Your task to perform on an android device: uninstall "Flipkart Online Shopping App" Image 0: 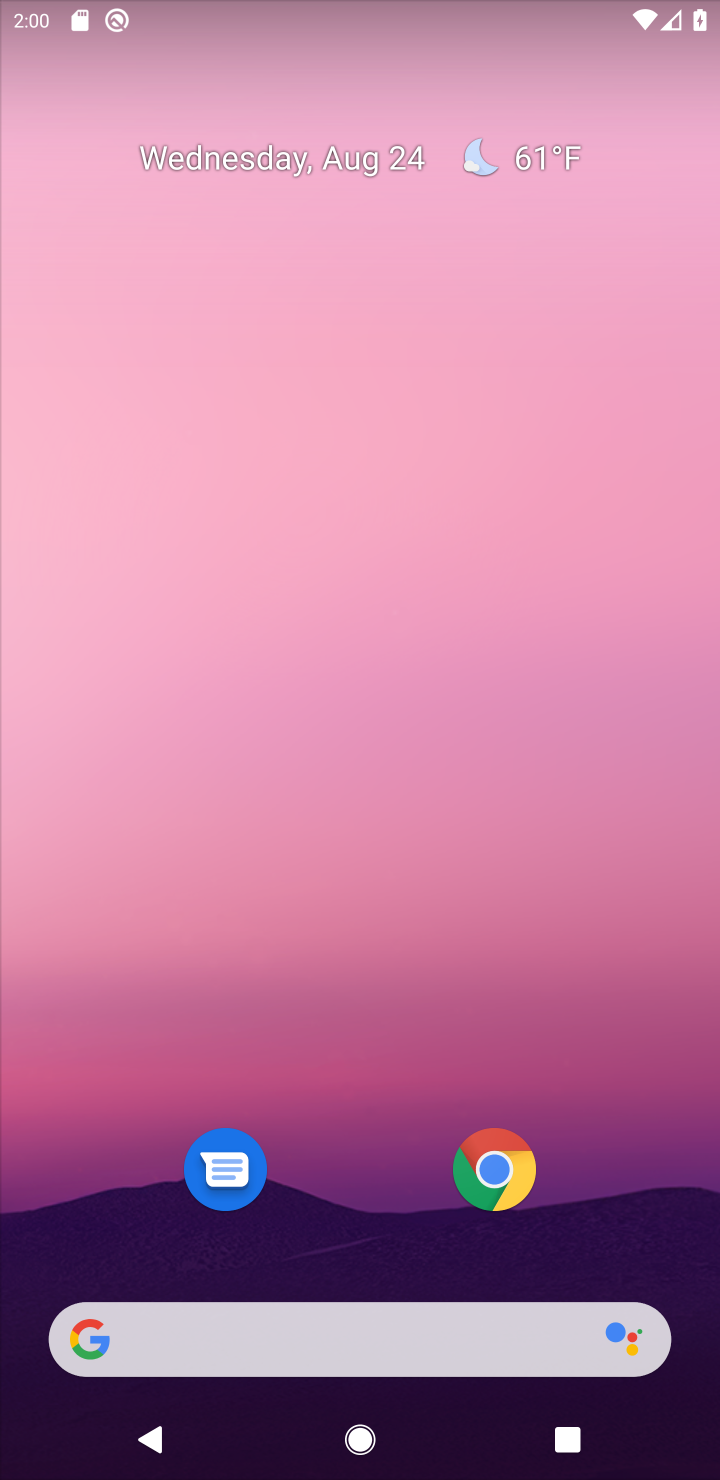
Step 0: drag from (437, 1241) to (313, 198)
Your task to perform on an android device: uninstall "Flipkart Online Shopping App" Image 1: 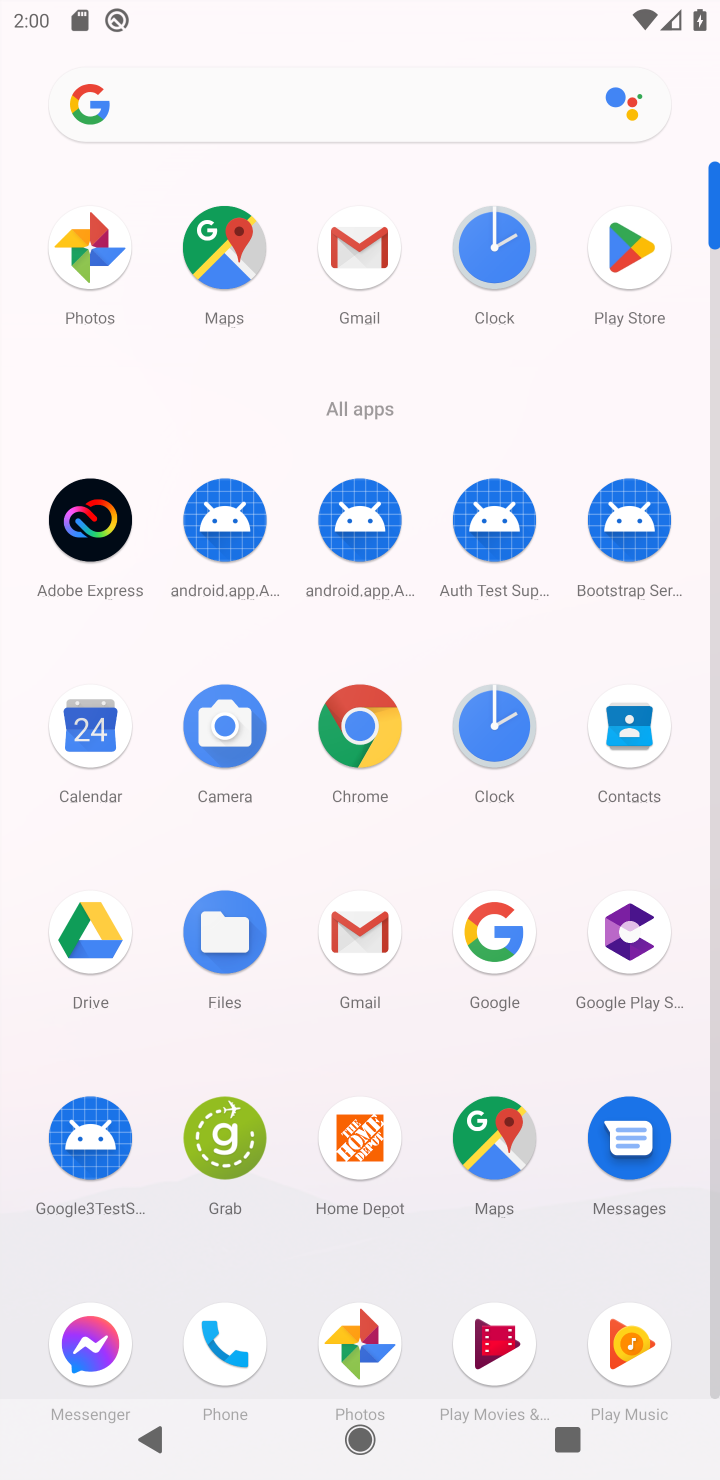
Step 1: click (616, 254)
Your task to perform on an android device: uninstall "Flipkart Online Shopping App" Image 2: 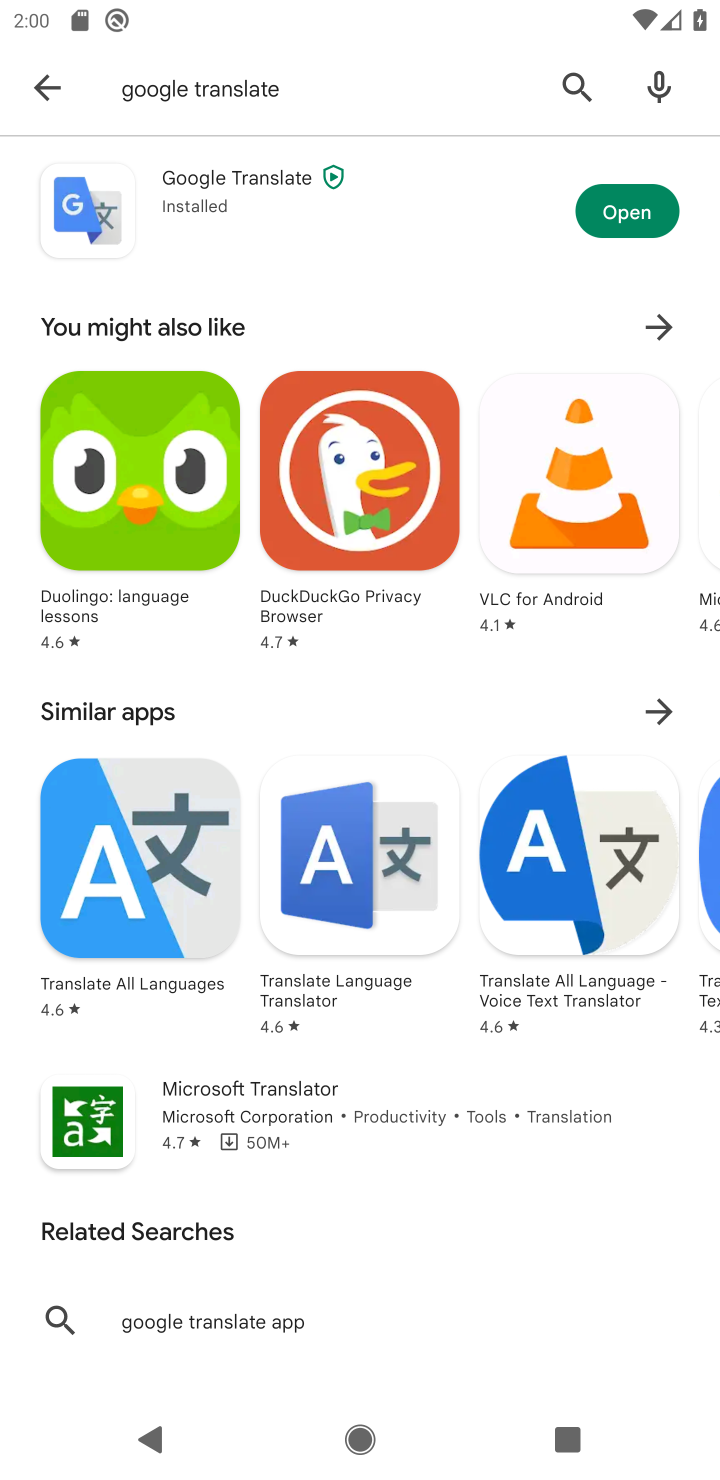
Step 2: click (49, 86)
Your task to perform on an android device: uninstall "Flipkart Online Shopping App" Image 3: 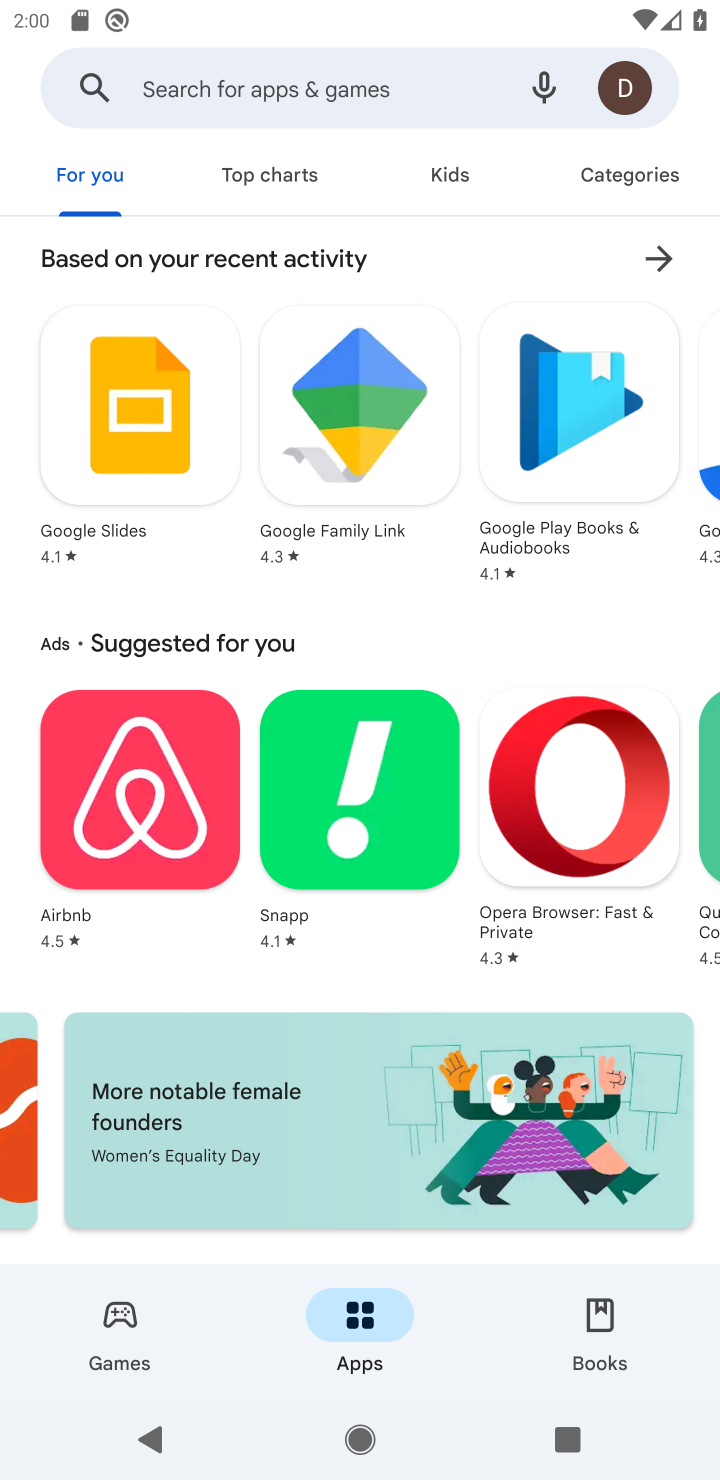
Step 3: click (248, 91)
Your task to perform on an android device: uninstall "Flipkart Online Shopping App" Image 4: 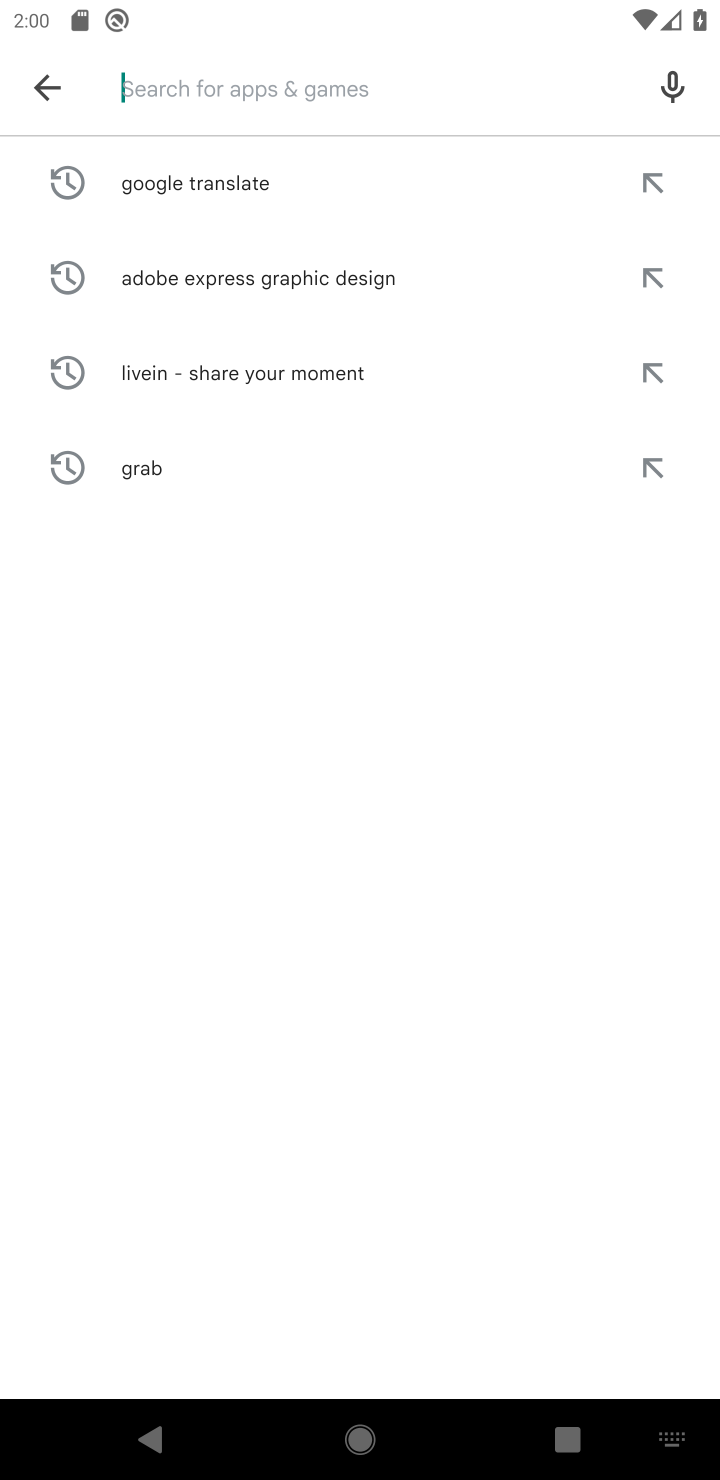
Step 4: type "Flipkart Online Shopping App"
Your task to perform on an android device: uninstall "Flipkart Online Shopping App" Image 5: 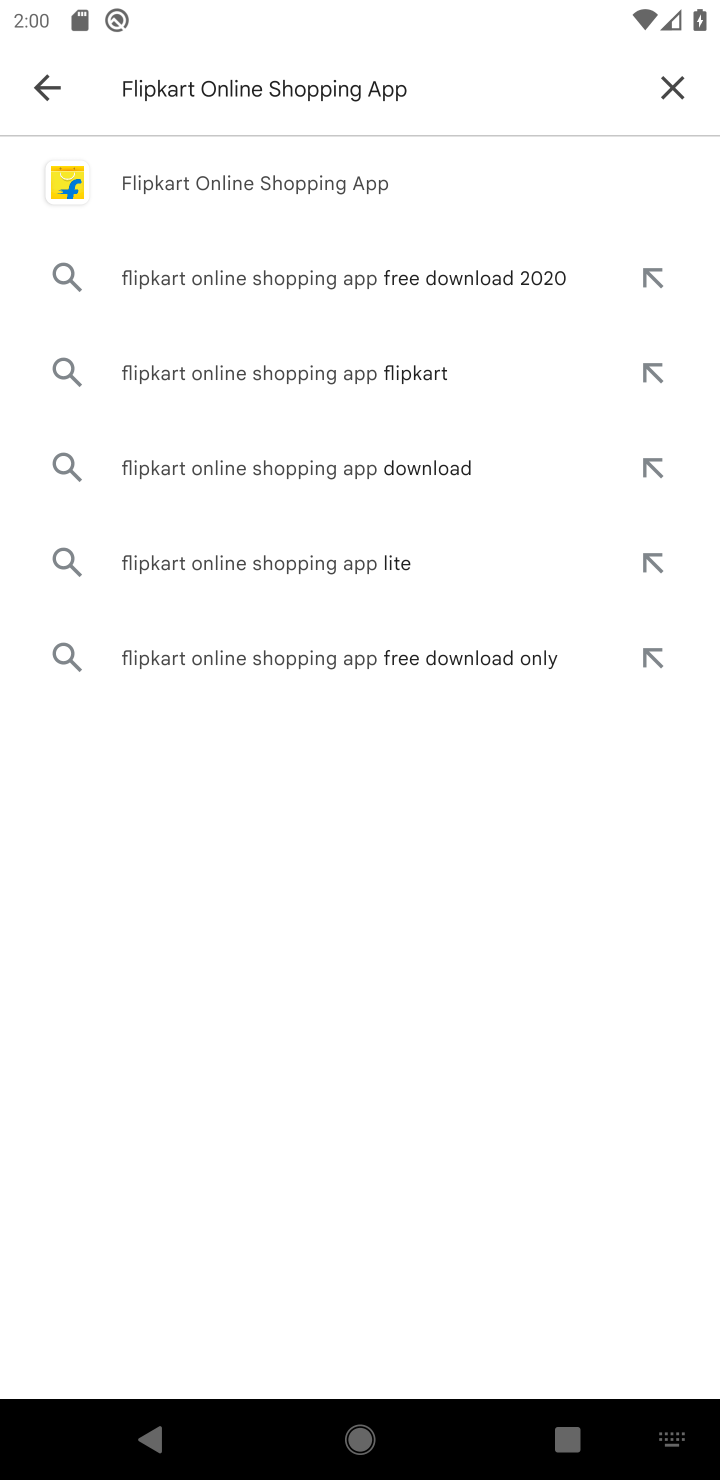
Step 5: click (369, 155)
Your task to perform on an android device: uninstall "Flipkart Online Shopping App" Image 6: 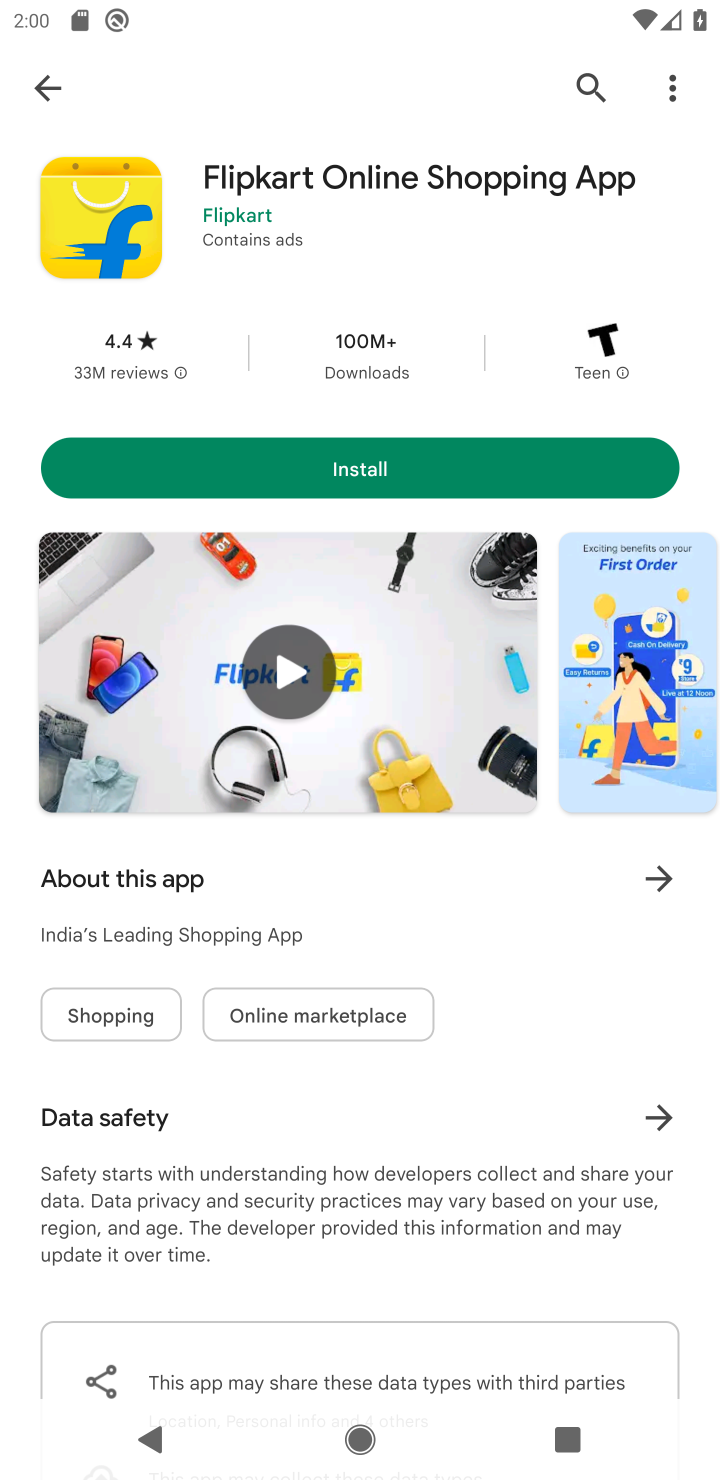
Step 6: task complete